Your task to perform on an android device: Open Google Maps and go to "Timeline" Image 0: 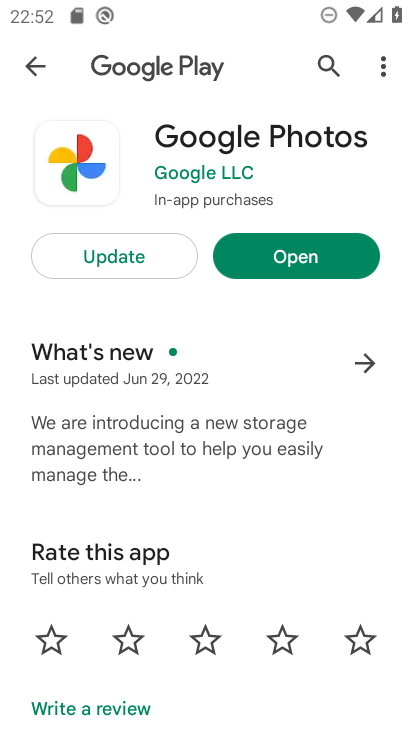
Step 0: press home button
Your task to perform on an android device: Open Google Maps and go to "Timeline" Image 1: 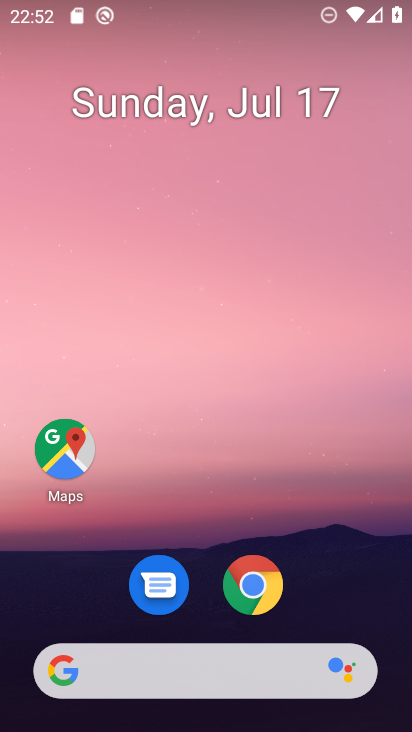
Step 1: click (59, 460)
Your task to perform on an android device: Open Google Maps and go to "Timeline" Image 2: 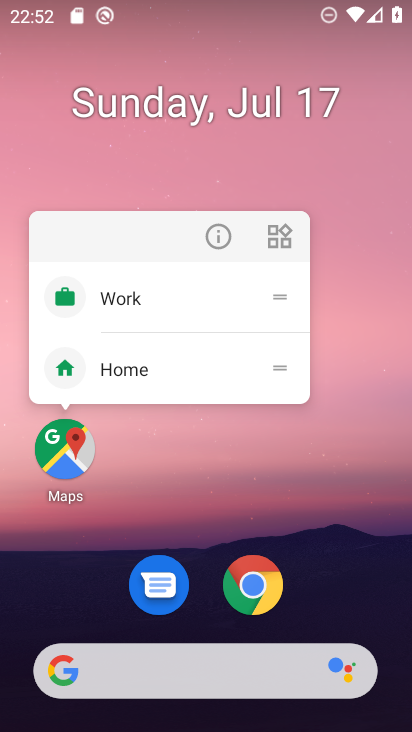
Step 2: click (62, 457)
Your task to perform on an android device: Open Google Maps and go to "Timeline" Image 3: 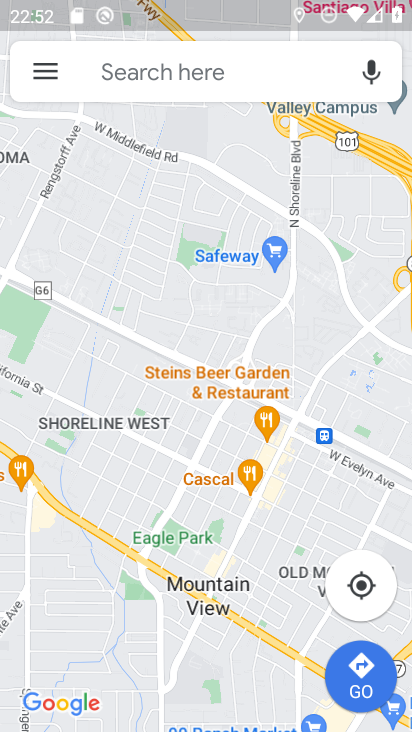
Step 3: click (48, 70)
Your task to perform on an android device: Open Google Maps and go to "Timeline" Image 4: 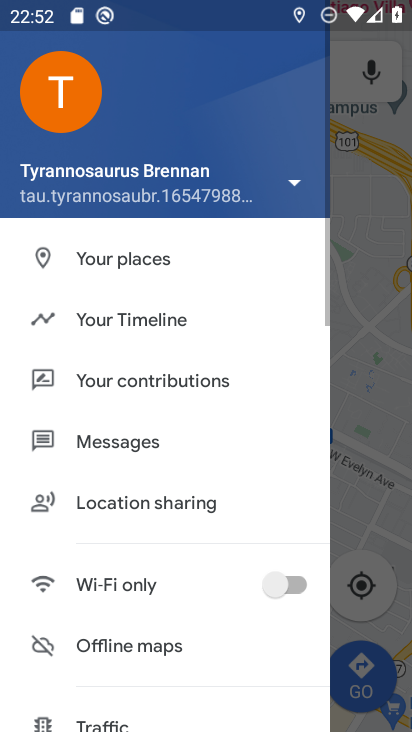
Step 4: click (128, 317)
Your task to perform on an android device: Open Google Maps and go to "Timeline" Image 5: 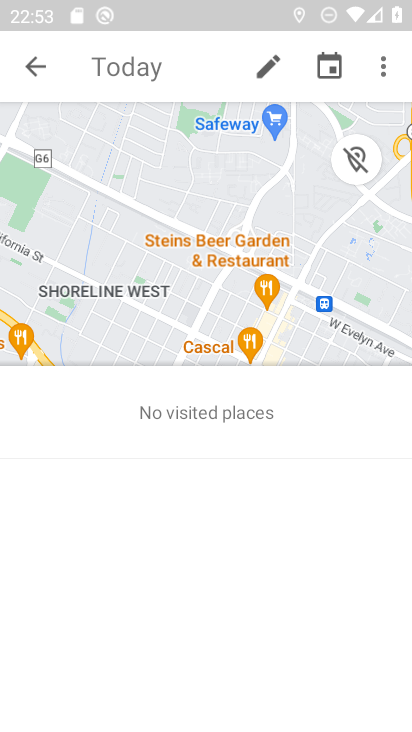
Step 5: task complete